Your task to perform on an android device: find photos in the google photos app Image 0: 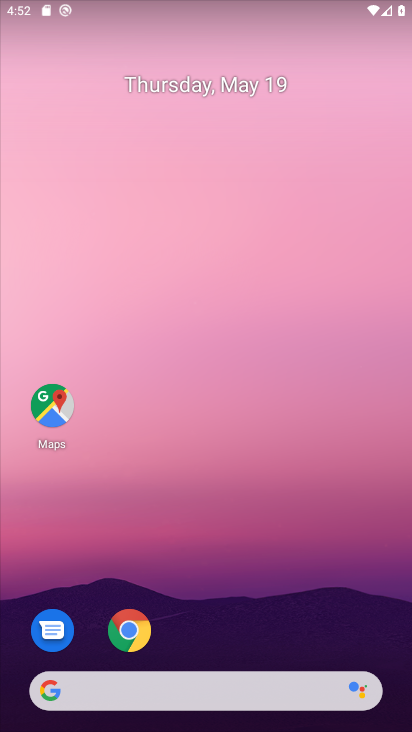
Step 0: drag from (260, 365) to (219, 13)
Your task to perform on an android device: find photos in the google photos app Image 1: 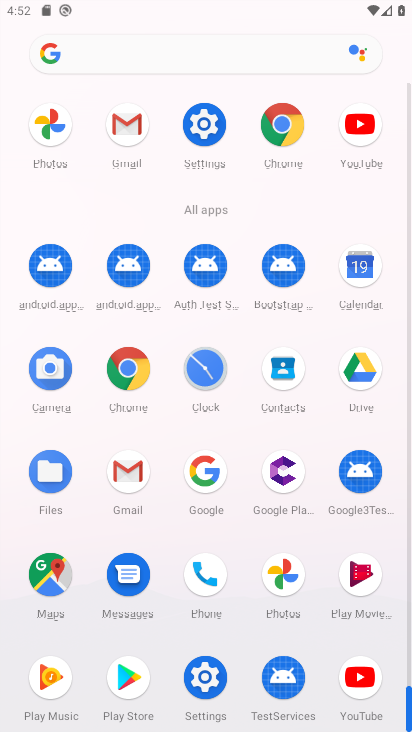
Step 1: drag from (12, 578) to (10, 277)
Your task to perform on an android device: find photos in the google photos app Image 2: 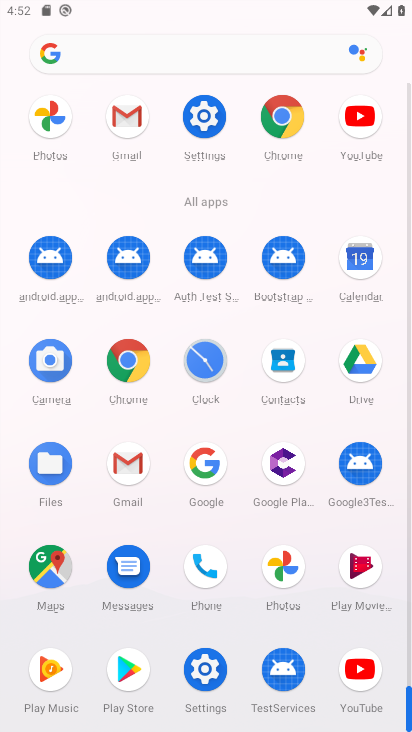
Step 2: click (289, 564)
Your task to perform on an android device: find photos in the google photos app Image 3: 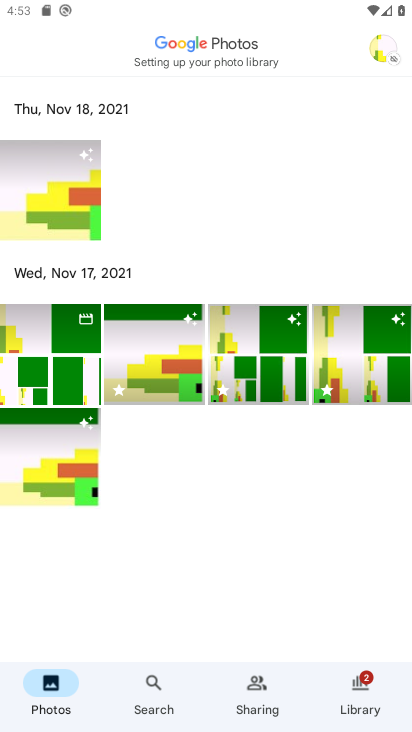
Step 3: task complete